Your task to perform on an android device: Open Wikipedia Image 0: 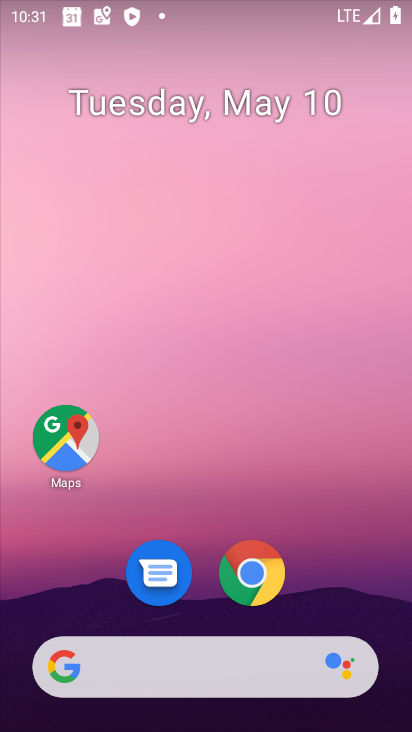
Step 0: click (254, 572)
Your task to perform on an android device: Open Wikipedia Image 1: 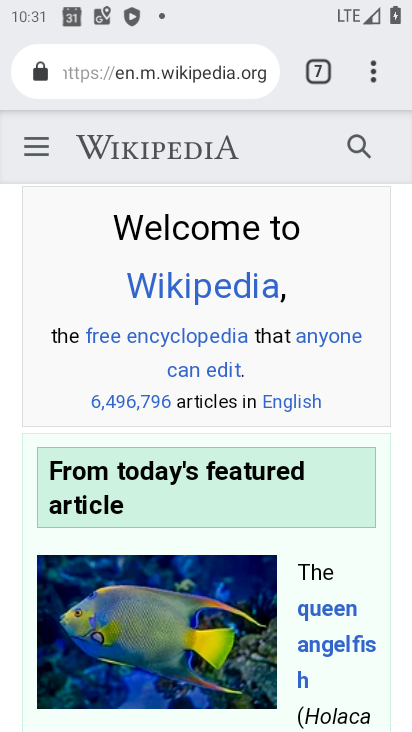
Step 1: task complete